Your task to perform on an android device: toggle wifi Image 0: 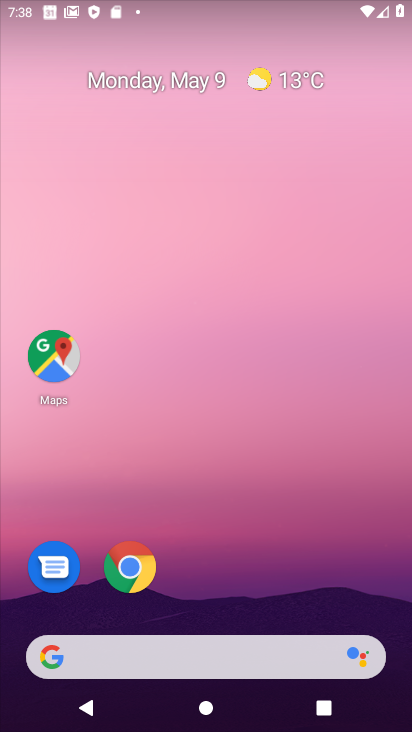
Step 0: drag from (317, 472) to (347, 45)
Your task to perform on an android device: toggle wifi Image 1: 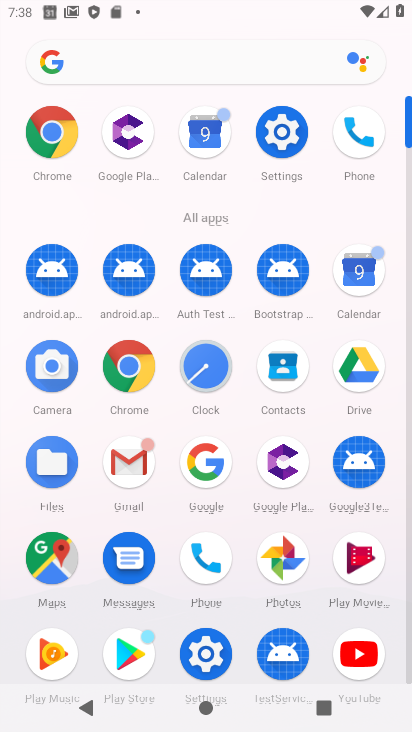
Step 1: click (287, 124)
Your task to perform on an android device: toggle wifi Image 2: 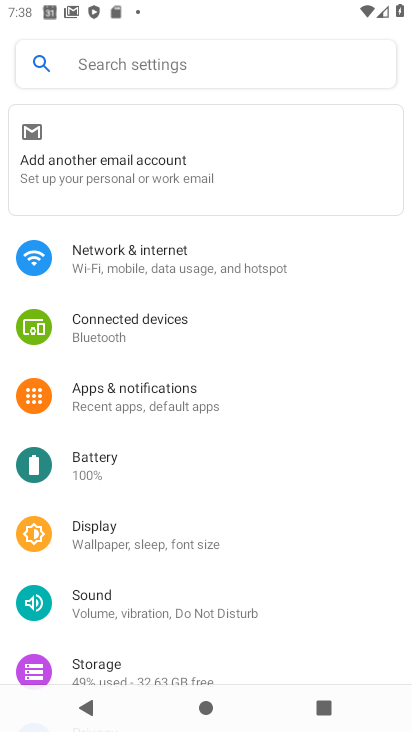
Step 2: click (184, 264)
Your task to perform on an android device: toggle wifi Image 3: 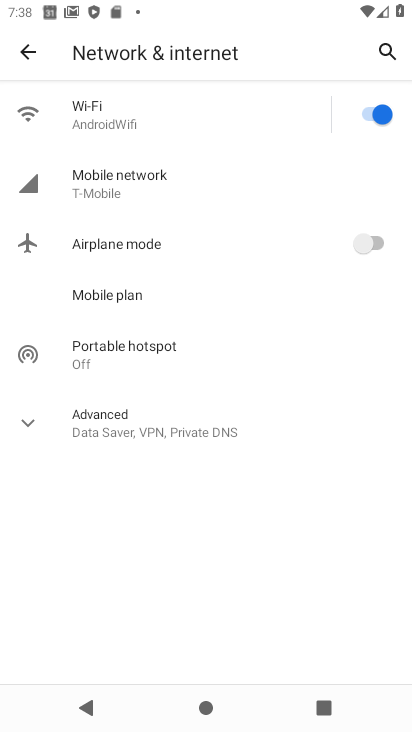
Step 3: click (372, 103)
Your task to perform on an android device: toggle wifi Image 4: 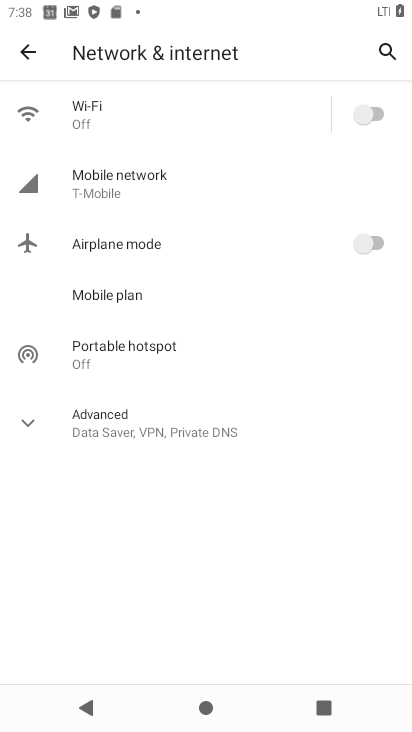
Step 4: task complete